Your task to perform on an android device: Go to Amazon Image 0: 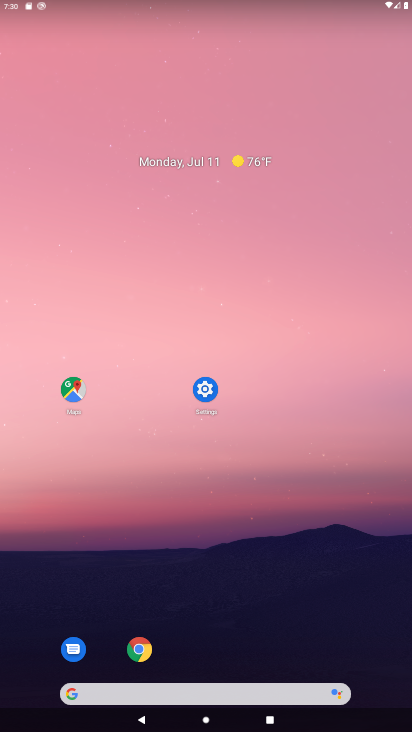
Step 0: click (139, 649)
Your task to perform on an android device: Go to Amazon Image 1: 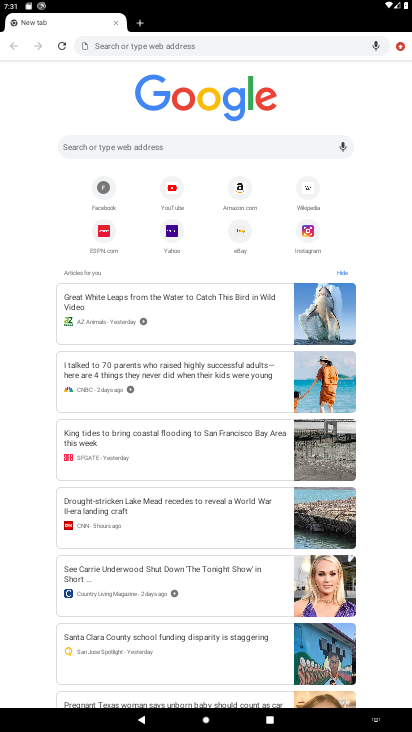
Step 1: click (150, 138)
Your task to perform on an android device: Go to Amazon Image 2: 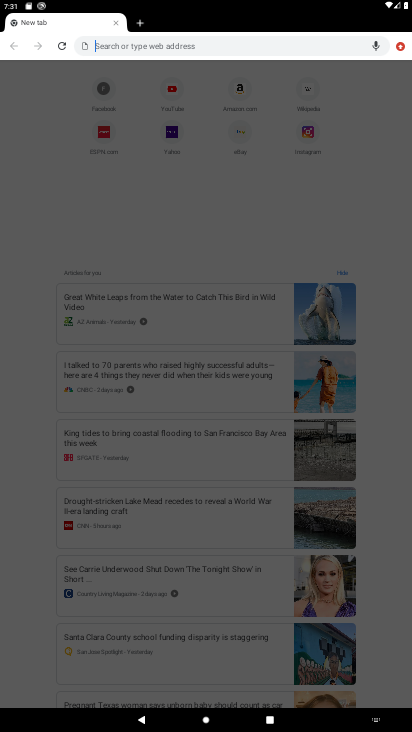
Step 2: type "Amazon"
Your task to perform on an android device: Go to Amazon Image 3: 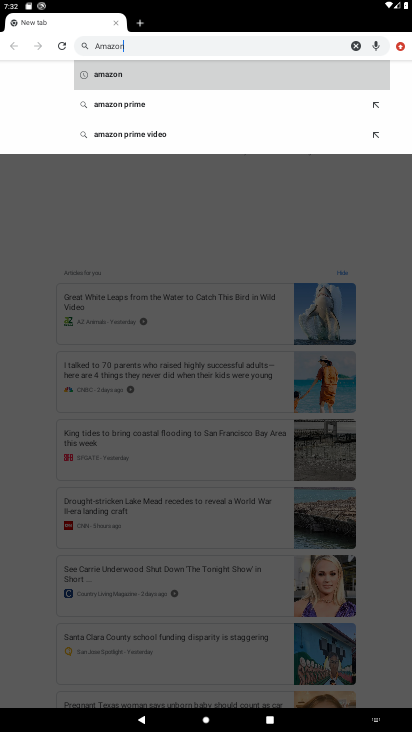
Step 3: click (109, 78)
Your task to perform on an android device: Go to Amazon Image 4: 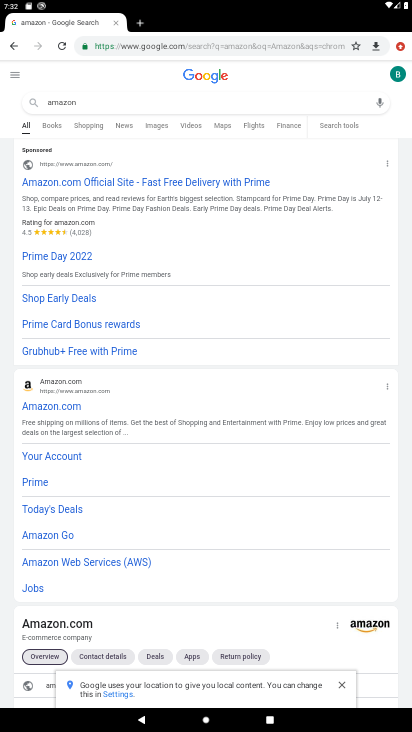
Step 4: task complete